Your task to perform on an android device: Empty the shopping cart on costco. Search for acer predator on costco, select the first entry, add it to the cart, then select checkout. Image 0: 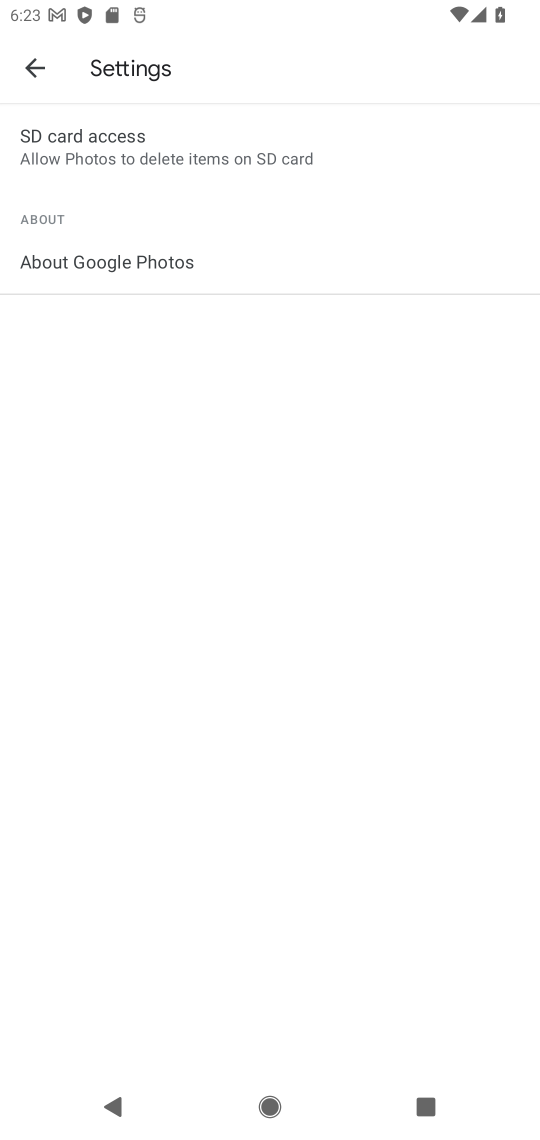
Step 0: press home button
Your task to perform on an android device: Empty the shopping cart on costco. Search for acer predator on costco, select the first entry, add it to the cart, then select checkout. Image 1: 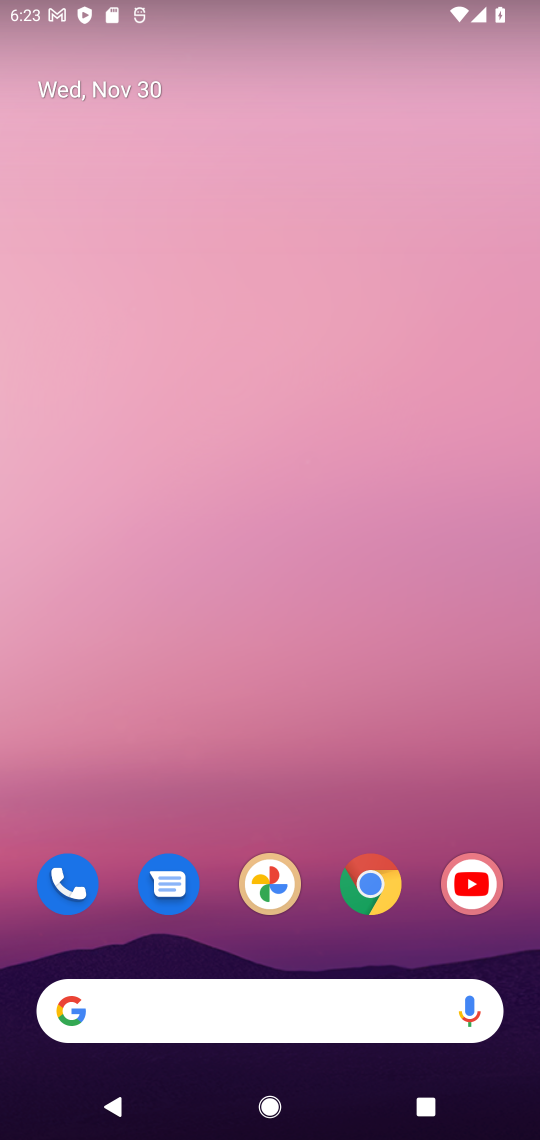
Step 1: click (386, 893)
Your task to perform on an android device: Empty the shopping cart on costco. Search for acer predator on costco, select the first entry, add it to the cart, then select checkout. Image 2: 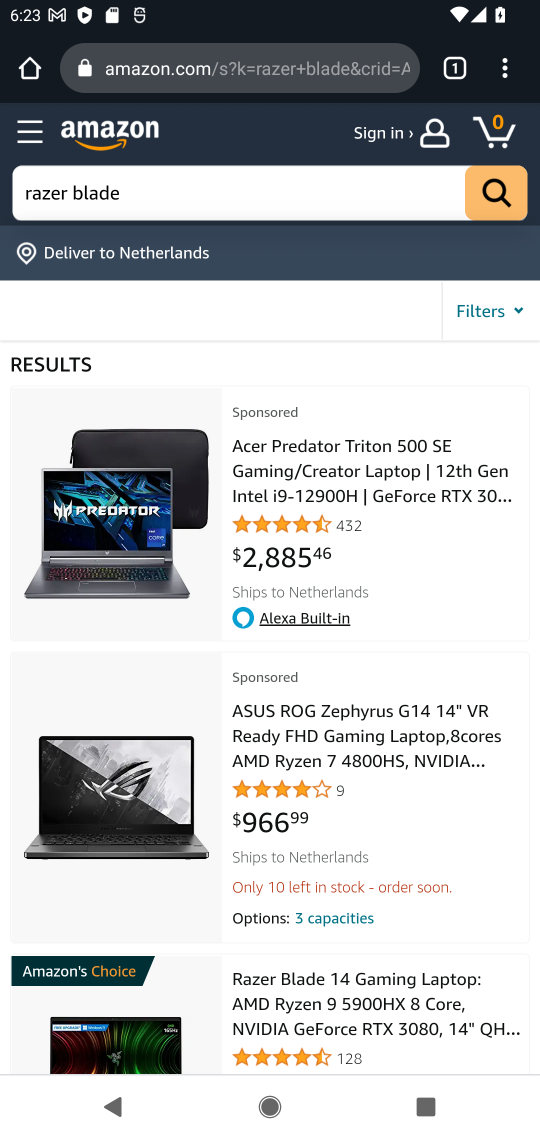
Step 2: click (175, 75)
Your task to perform on an android device: Empty the shopping cart on costco. Search for acer predator on costco, select the first entry, add it to the cart, then select checkout. Image 3: 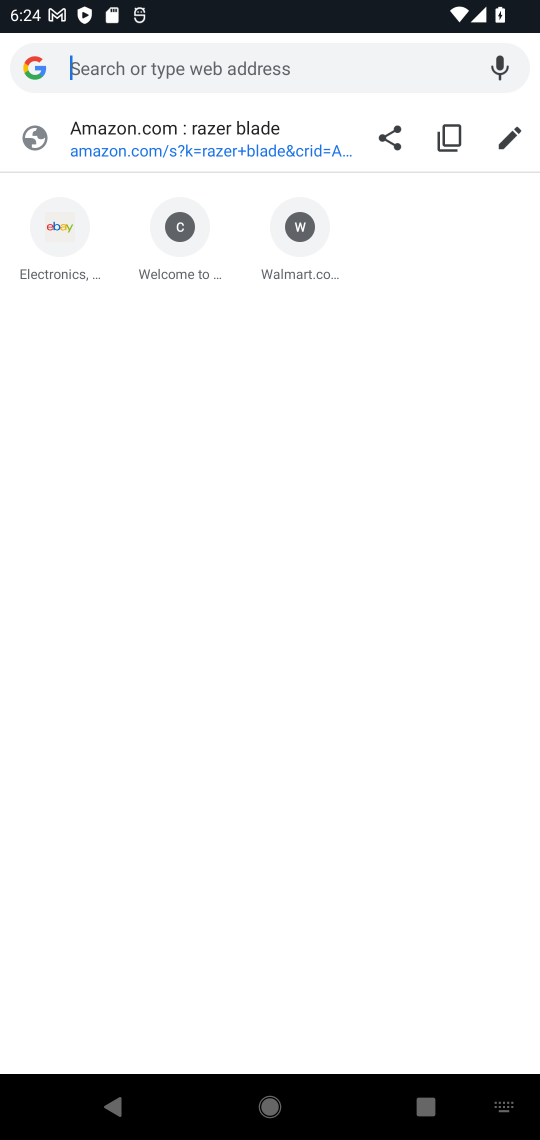
Step 3: type "costco.com"
Your task to perform on an android device: Empty the shopping cart on costco. Search for acer predator on costco, select the first entry, add it to the cart, then select checkout. Image 4: 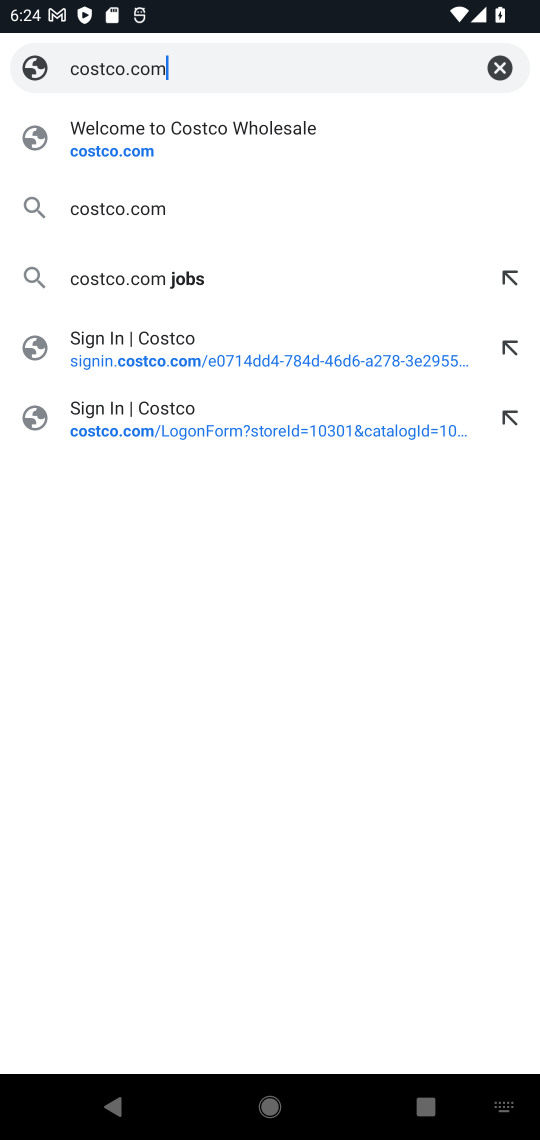
Step 4: click (90, 144)
Your task to perform on an android device: Empty the shopping cart on costco. Search for acer predator on costco, select the first entry, add it to the cart, then select checkout. Image 5: 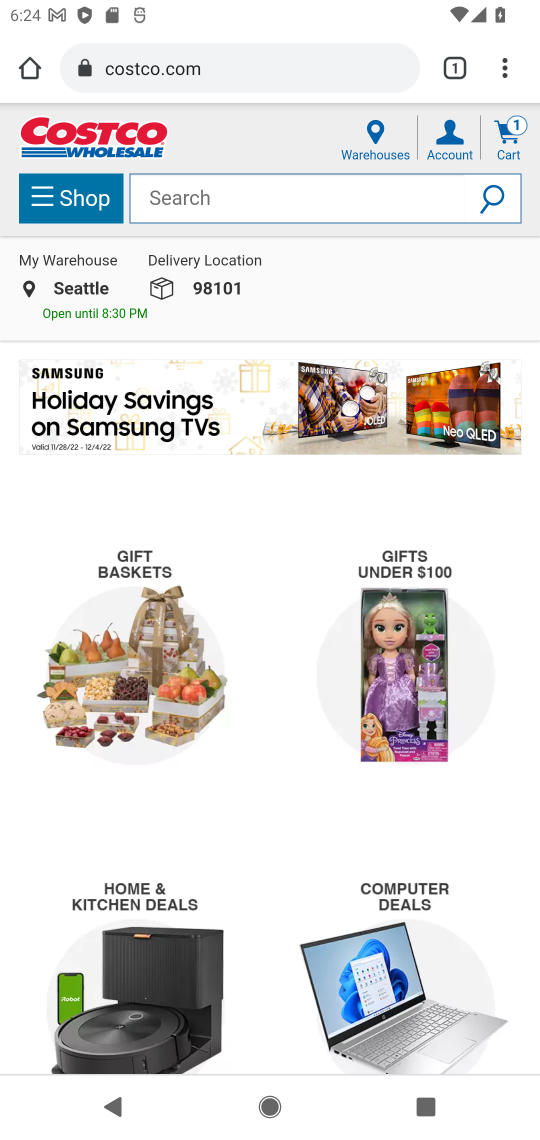
Step 5: click (504, 136)
Your task to perform on an android device: Empty the shopping cart on costco. Search for acer predator on costco, select the first entry, add it to the cart, then select checkout. Image 6: 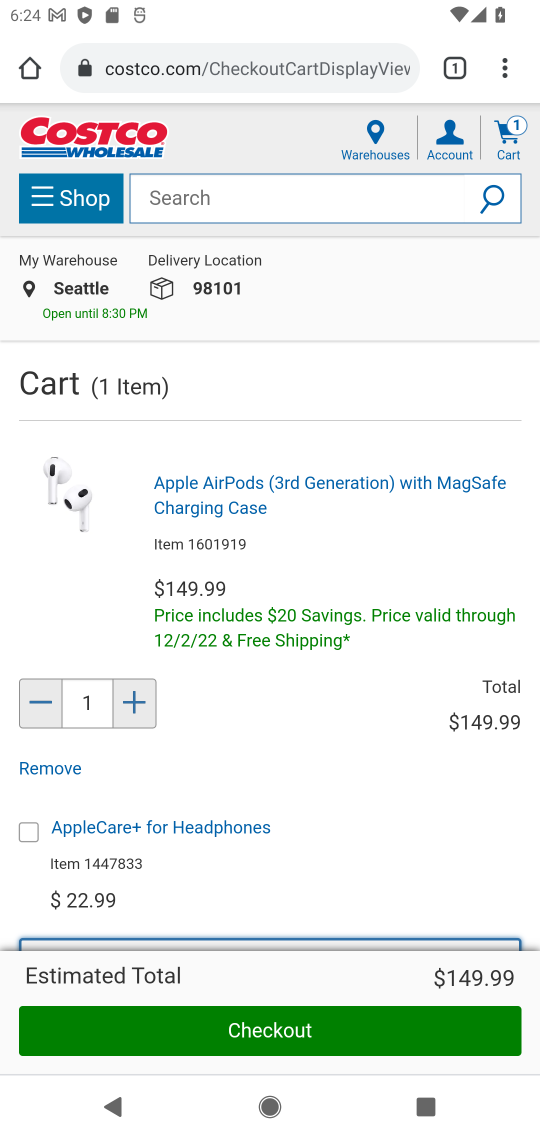
Step 6: drag from (241, 707) to (262, 417)
Your task to perform on an android device: Empty the shopping cart on costco. Search for acer predator on costco, select the first entry, add it to the cart, then select checkout. Image 7: 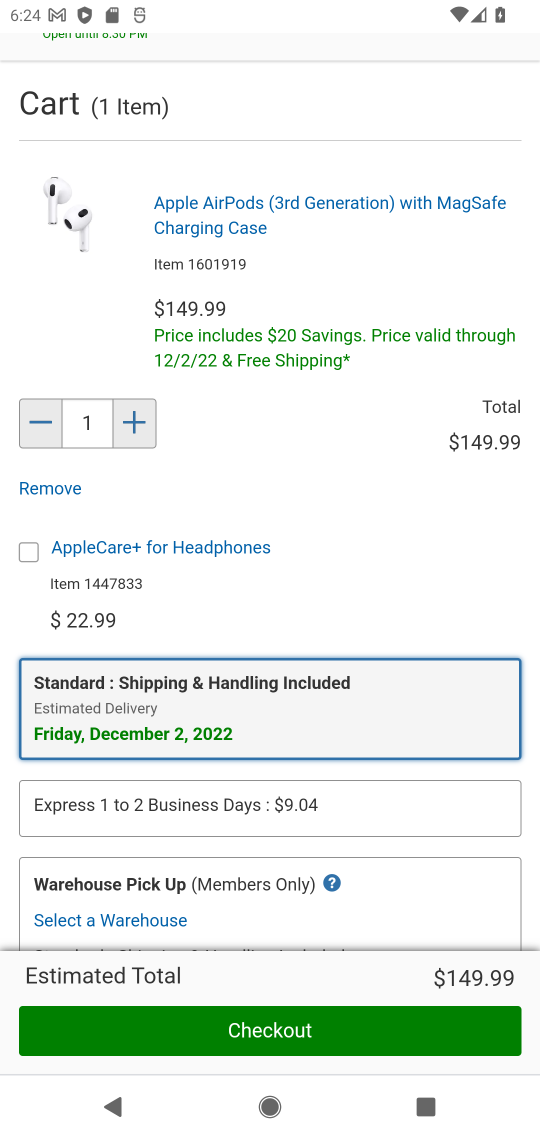
Step 7: drag from (343, 900) to (378, 518)
Your task to perform on an android device: Empty the shopping cart on costco. Search for acer predator on costco, select the first entry, add it to the cart, then select checkout. Image 8: 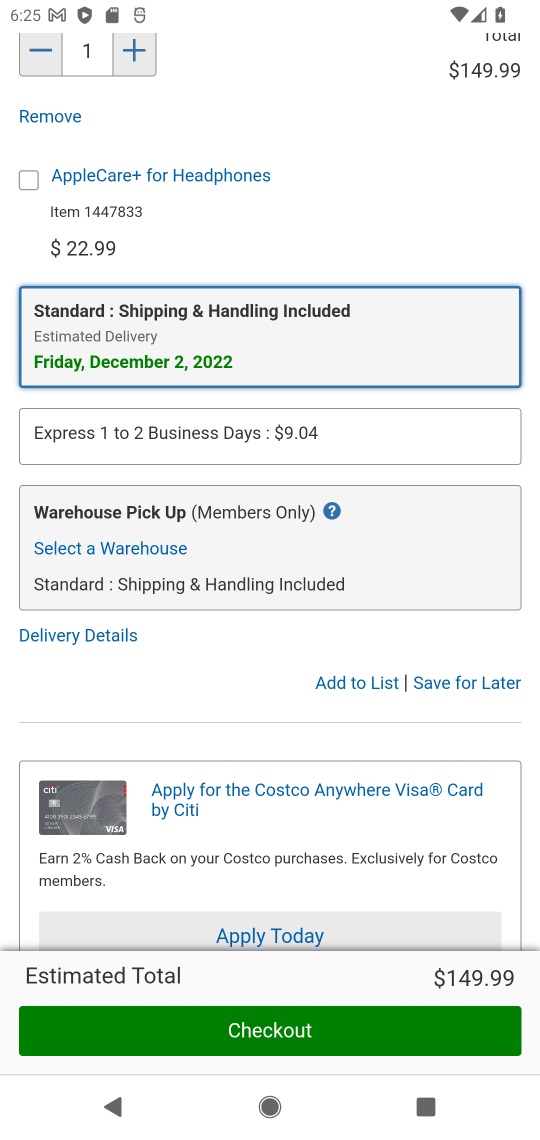
Step 8: click (446, 683)
Your task to perform on an android device: Empty the shopping cart on costco. Search for acer predator on costco, select the first entry, add it to the cart, then select checkout. Image 9: 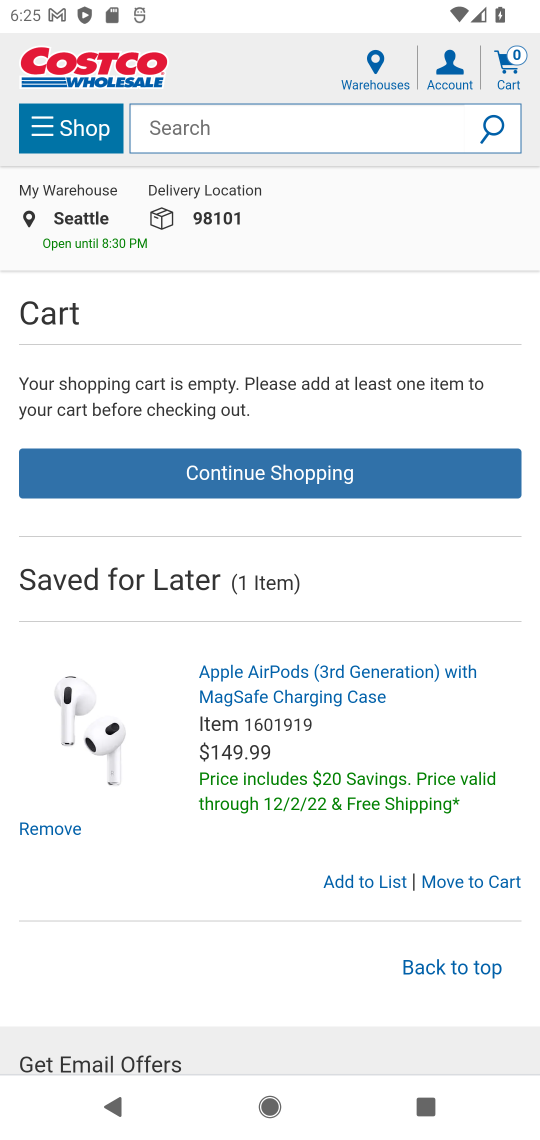
Step 9: click (189, 124)
Your task to perform on an android device: Empty the shopping cart on costco. Search for acer predator on costco, select the first entry, add it to the cart, then select checkout. Image 10: 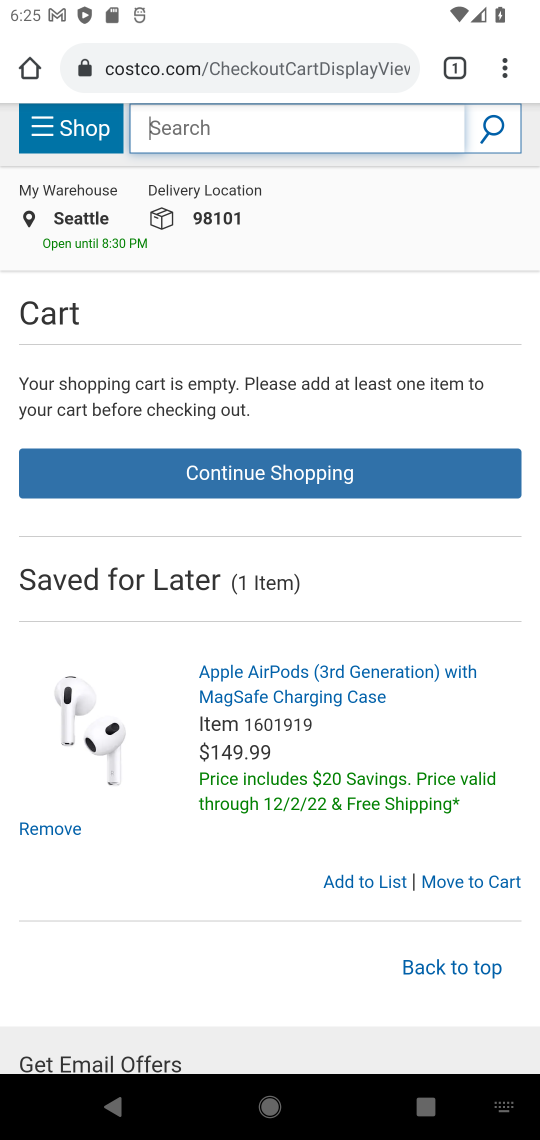
Step 10: type "acer predator"
Your task to perform on an android device: Empty the shopping cart on costco. Search for acer predator on costco, select the first entry, add it to the cart, then select checkout. Image 11: 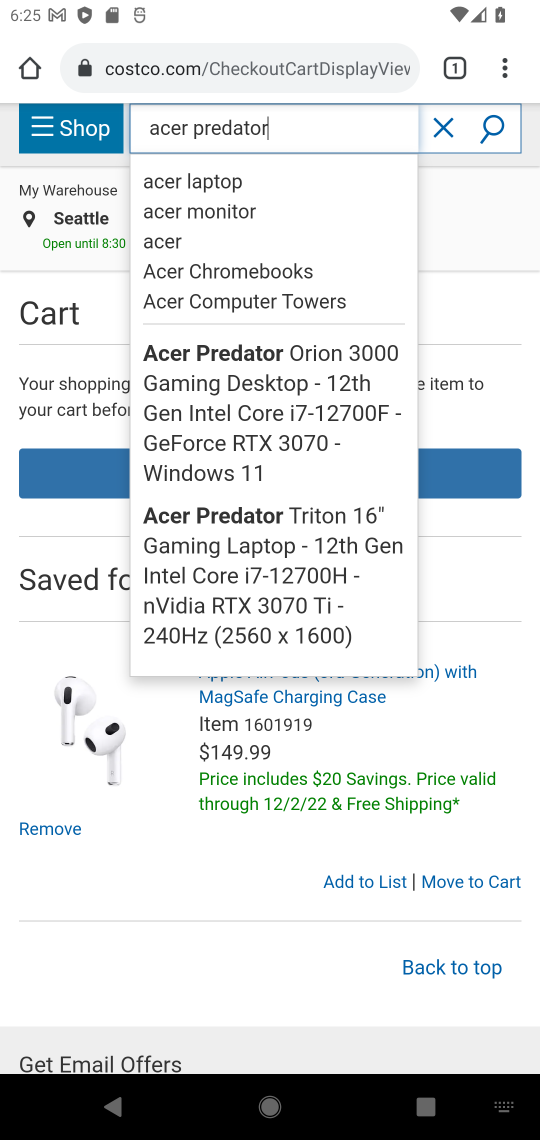
Step 11: click (496, 123)
Your task to perform on an android device: Empty the shopping cart on costco. Search for acer predator on costco, select the first entry, add it to the cart, then select checkout. Image 12: 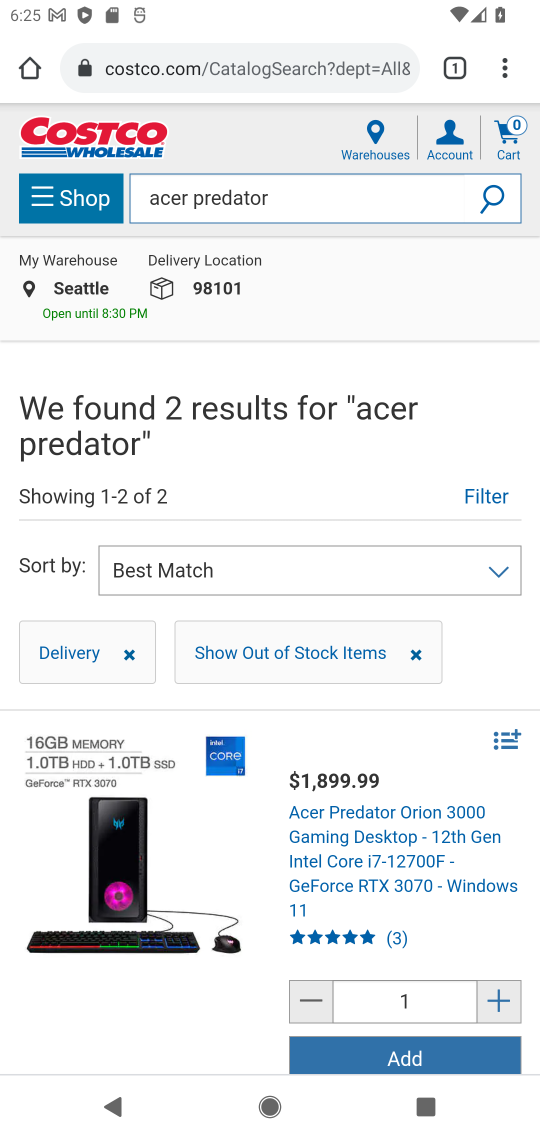
Step 12: click (387, 1053)
Your task to perform on an android device: Empty the shopping cart on costco. Search for acer predator on costco, select the first entry, add it to the cart, then select checkout. Image 13: 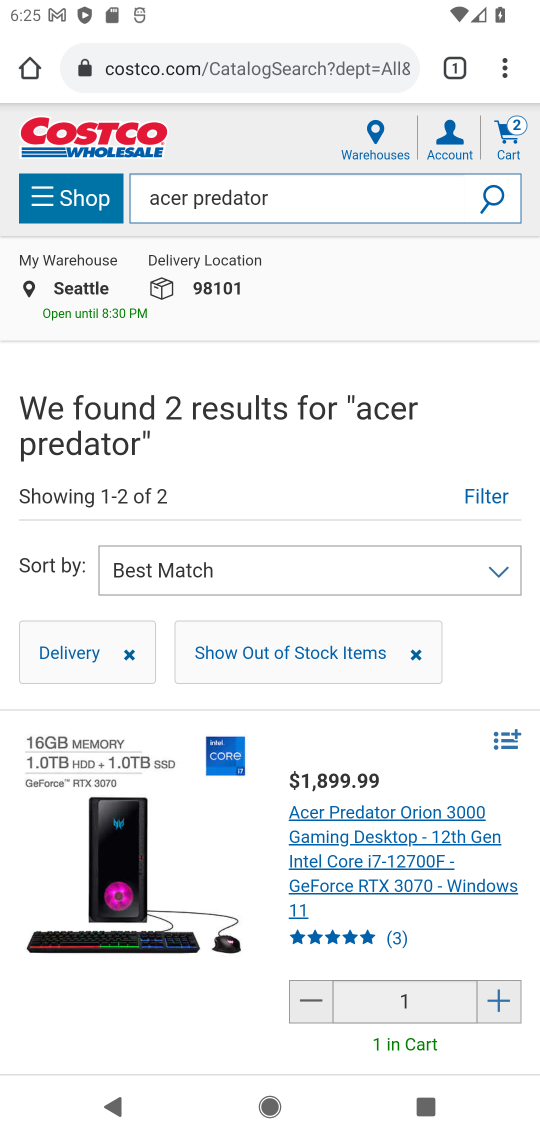
Step 13: click (514, 137)
Your task to perform on an android device: Empty the shopping cart on costco. Search for acer predator on costco, select the first entry, add it to the cart, then select checkout. Image 14: 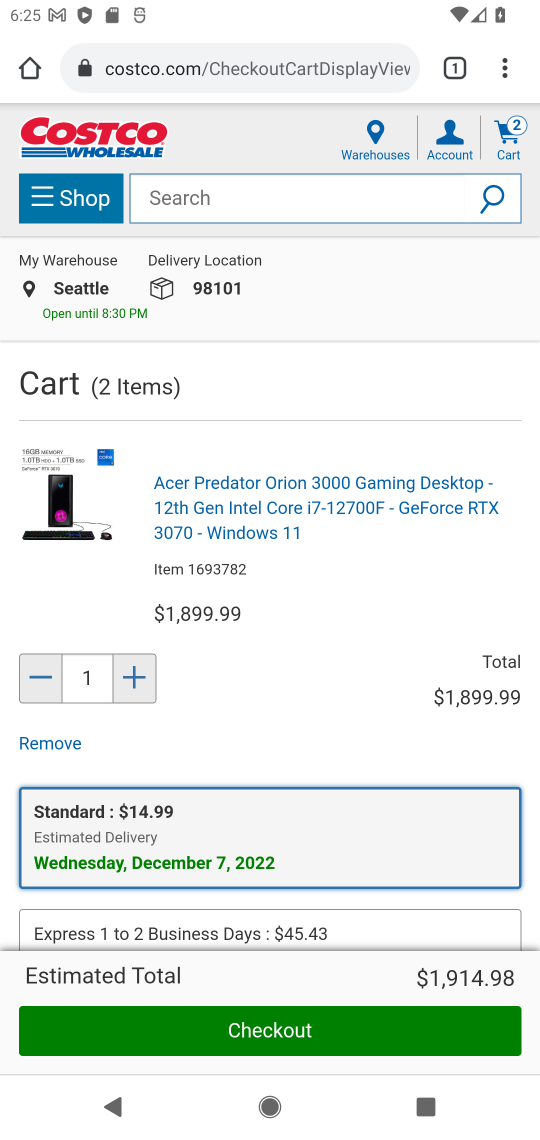
Step 14: click (254, 1032)
Your task to perform on an android device: Empty the shopping cart on costco. Search for acer predator on costco, select the first entry, add it to the cart, then select checkout. Image 15: 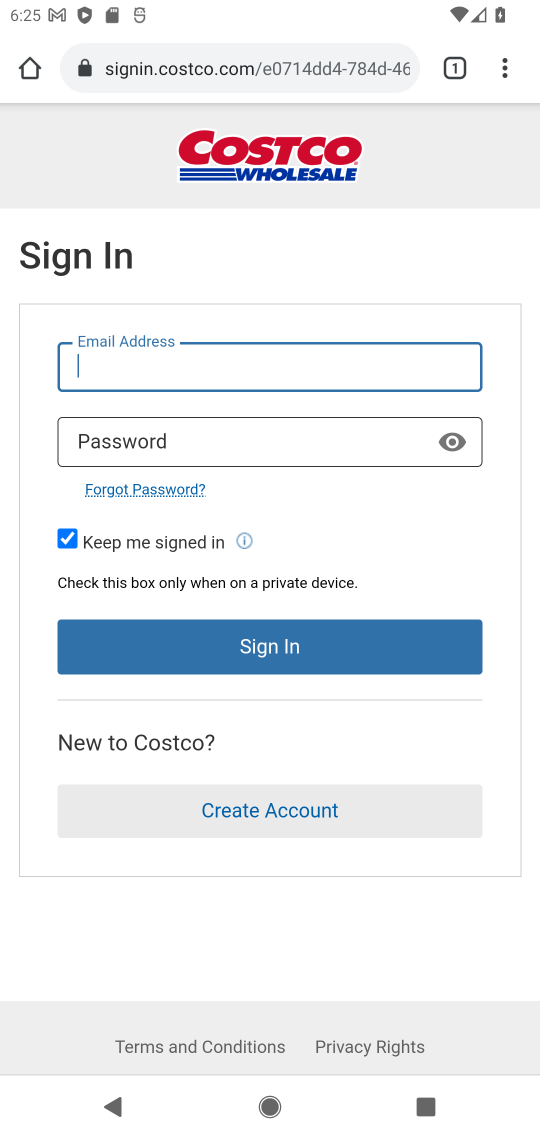
Step 15: task complete